Your task to perform on an android device: turn vacation reply on in the gmail app Image 0: 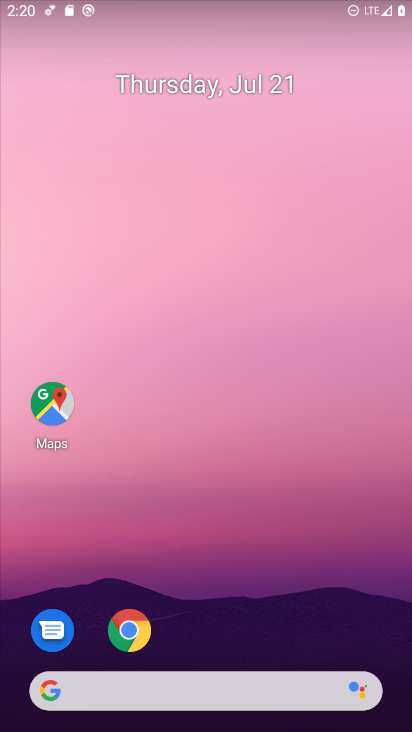
Step 0: drag from (258, 597) to (182, 2)
Your task to perform on an android device: turn vacation reply on in the gmail app Image 1: 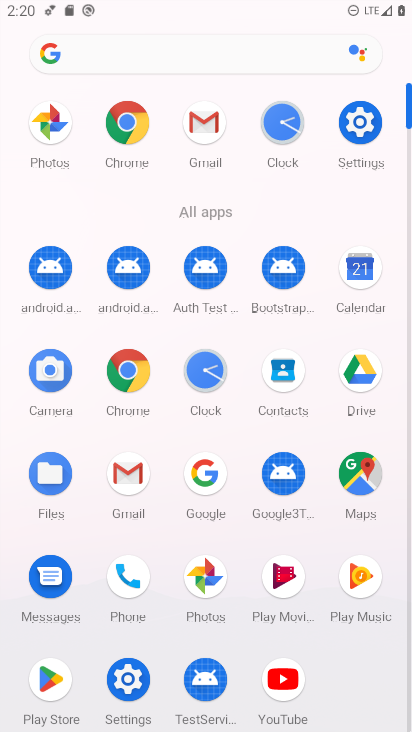
Step 1: click (120, 470)
Your task to perform on an android device: turn vacation reply on in the gmail app Image 2: 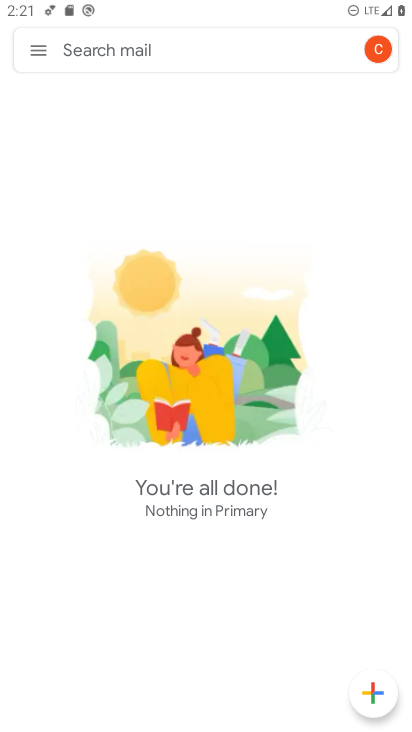
Step 2: click (42, 47)
Your task to perform on an android device: turn vacation reply on in the gmail app Image 3: 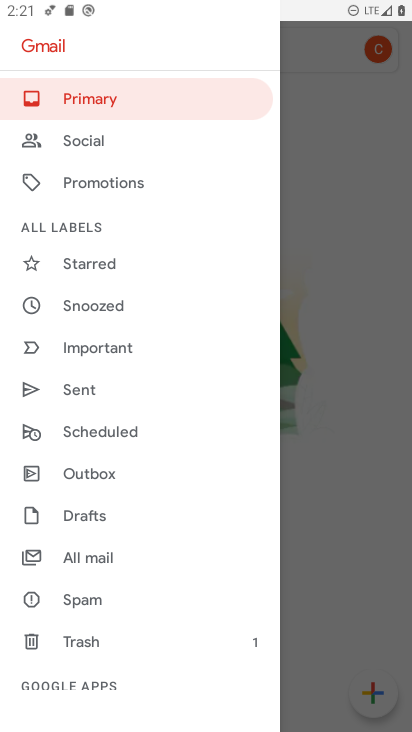
Step 3: drag from (150, 494) to (148, 213)
Your task to perform on an android device: turn vacation reply on in the gmail app Image 4: 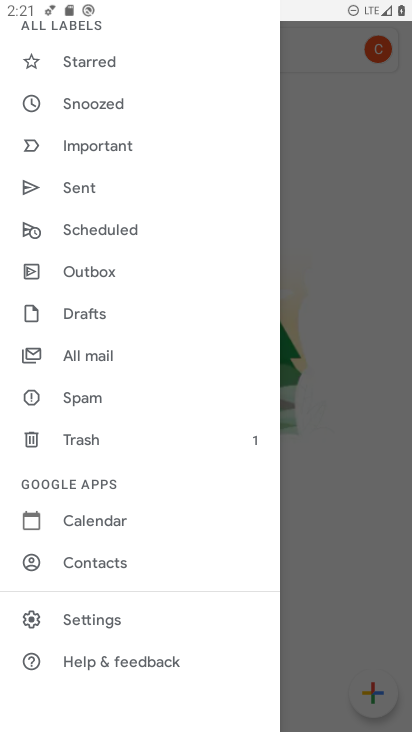
Step 4: click (100, 610)
Your task to perform on an android device: turn vacation reply on in the gmail app Image 5: 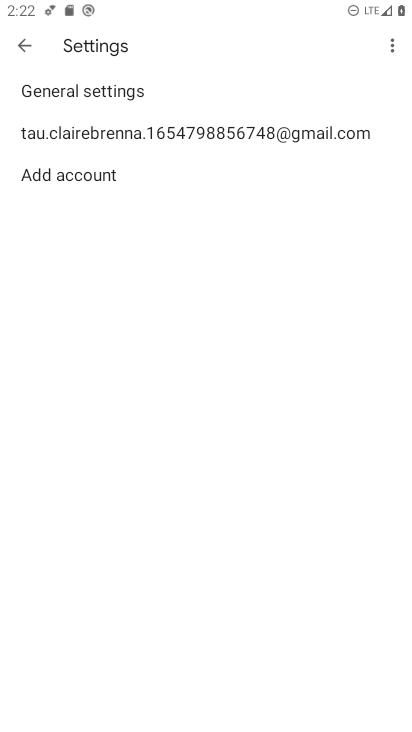
Step 5: click (105, 128)
Your task to perform on an android device: turn vacation reply on in the gmail app Image 6: 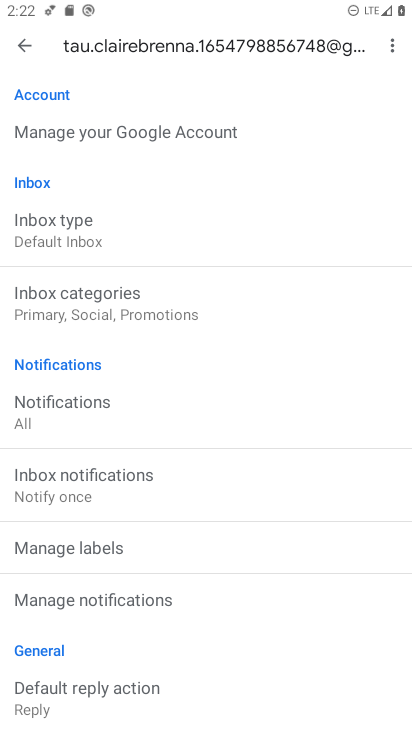
Step 6: drag from (277, 527) to (197, 103)
Your task to perform on an android device: turn vacation reply on in the gmail app Image 7: 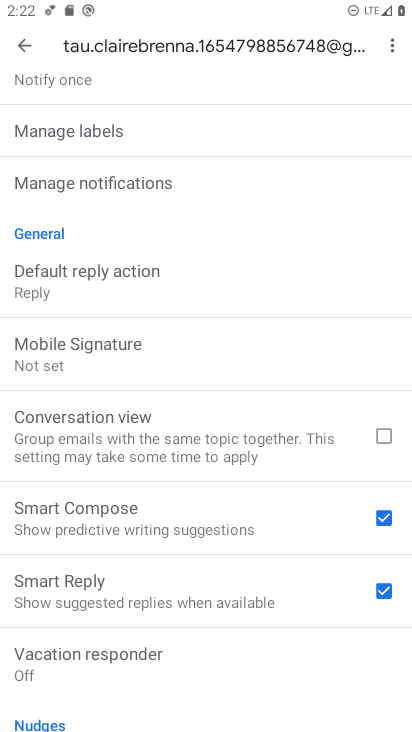
Step 7: drag from (176, 626) to (144, 415)
Your task to perform on an android device: turn vacation reply on in the gmail app Image 8: 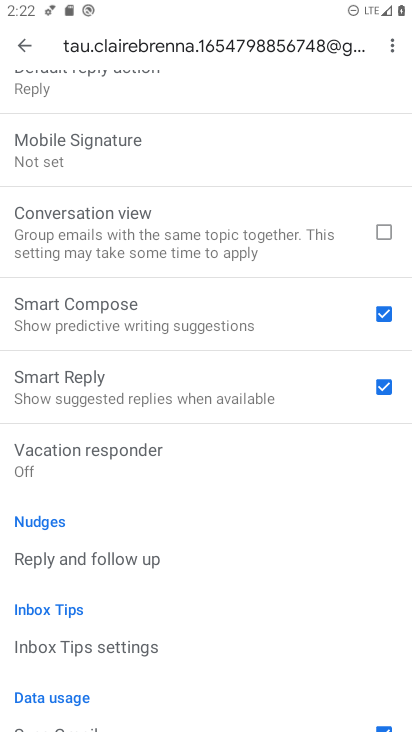
Step 8: drag from (163, 614) to (143, 446)
Your task to perform on an android device: turn vacation reply on in the gmail app Image 9: 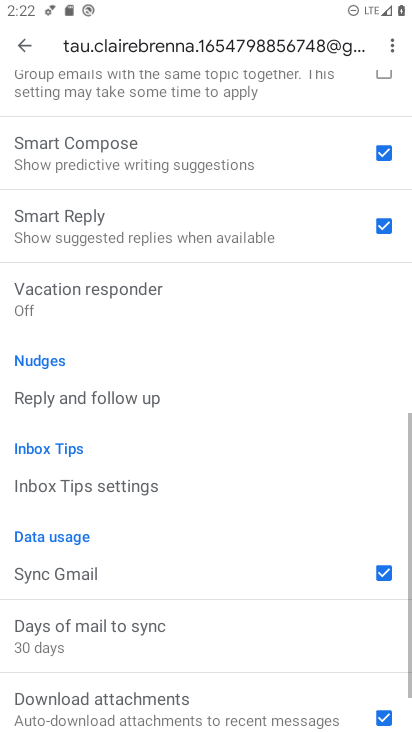
Step 9: drag from (174, 616) to (176, 305)
Your task to perform on an android device: turn vacation reply on in the gmail app Image 10: 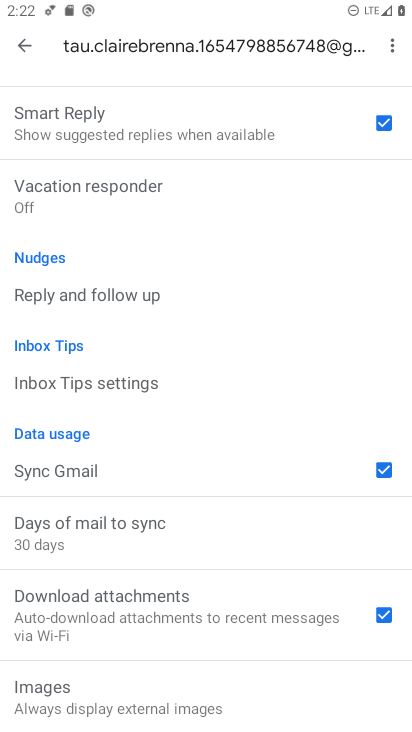
Step 10: drag from (214, 611) to (238, 409)
Your task to perform on an android device: turn vacation reply on in the gmail app Image 11: 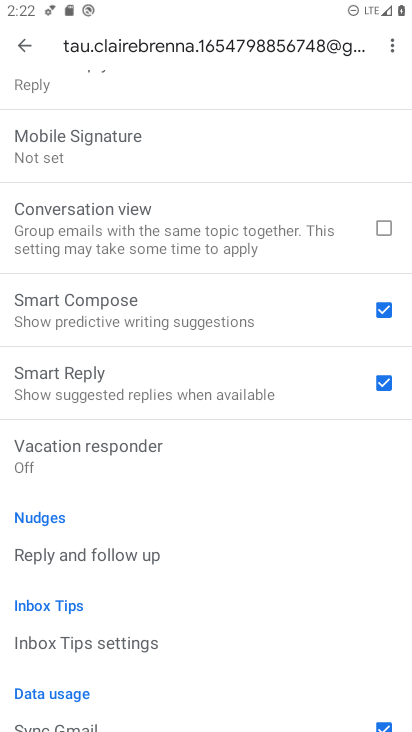
Step 11: click (136, 453)
Your task to perform on an android device: turn vacation reply on in the gmail app Image 12: 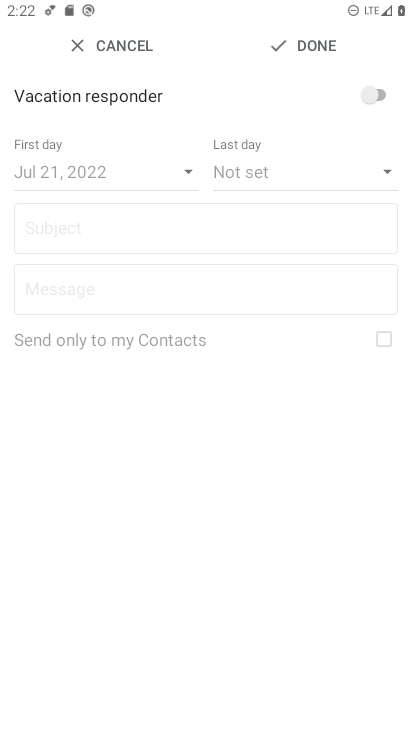
Step 12: click (373, 96)
Your task to perform on an android device: turn vacation reply on in the gmail app Image 13: 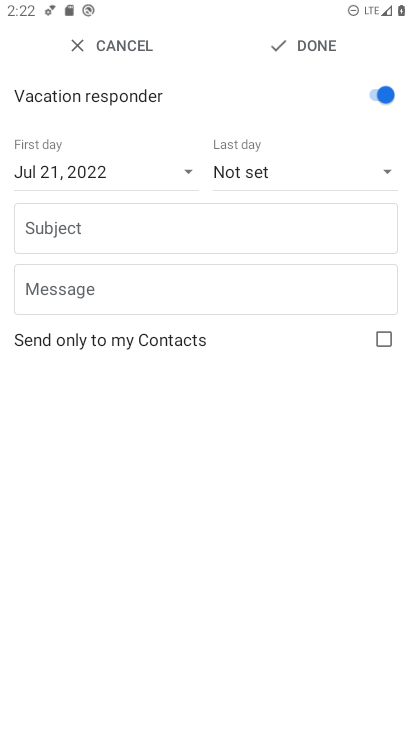
Step 13: click (225, 232)
Your task to perform on an android device: turn vacation reply on in the gmail app Image 14: 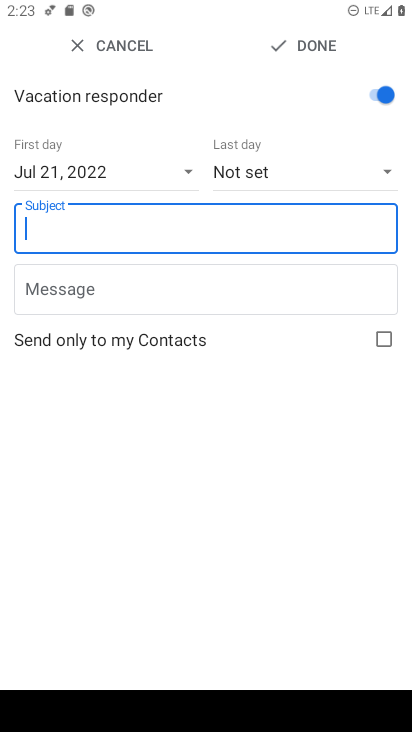
Step 14: type "gg"
Your task to perform on an android device: turn vacation reply on in the gmail app Image 15: 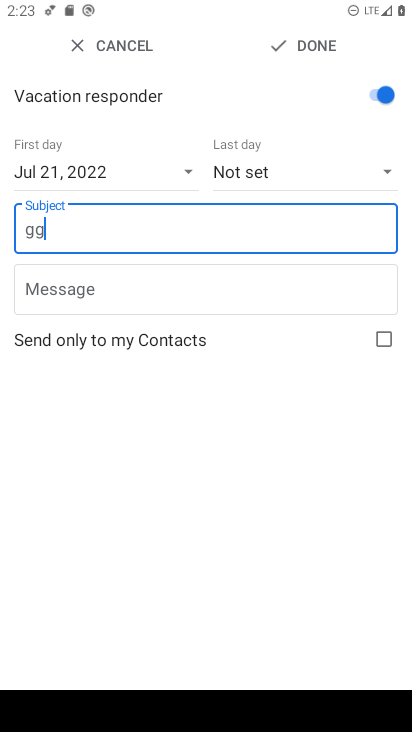
Step 15: click (315, 43)
Your task to perform on an android device: turn vacation reply on in the gmail app Image 16: 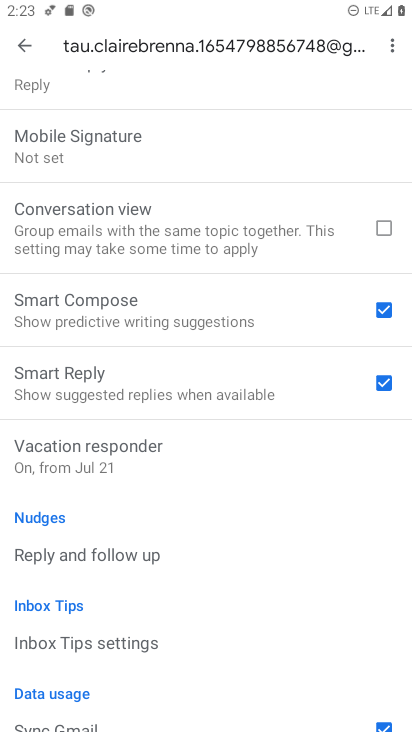
Step 16: task complete